Your task to perform on an android device: delete a single message in the gmail app Image 0: 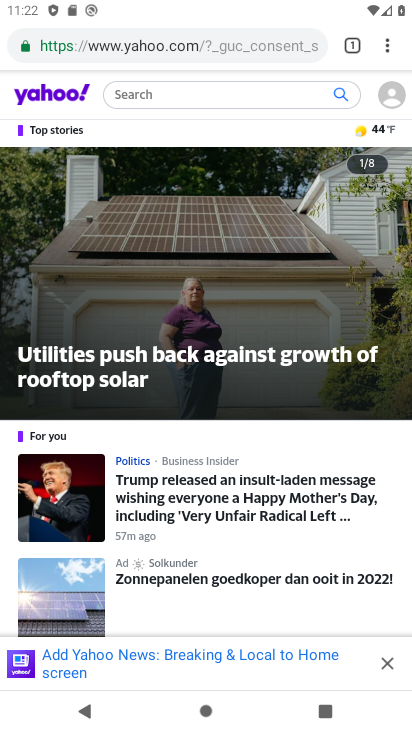
Step 0: press back button
Your task to perform on an android device: delete a single message in the gmail app Image 1: 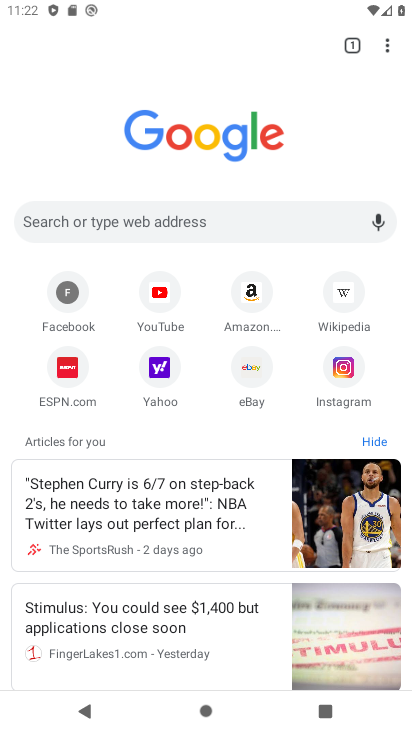
Step 1: press back button
Your task to perform on an android device: delete a single message in the gmail app Image 2: 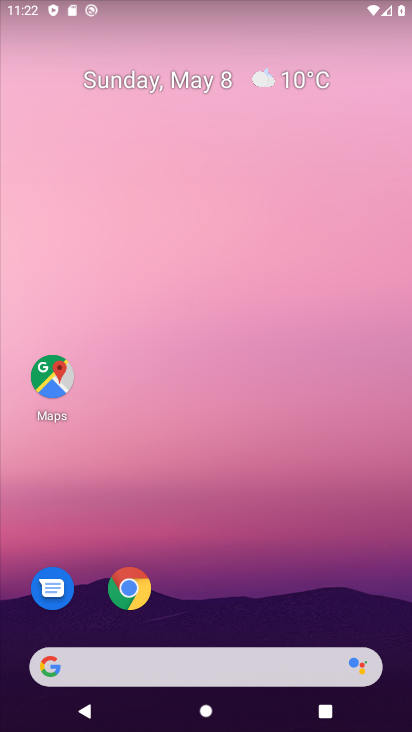
Step 2: drag from (234, 534) to (301, 44)
Your task to perform on an android device: delete a single message in the gmail app Image 3: 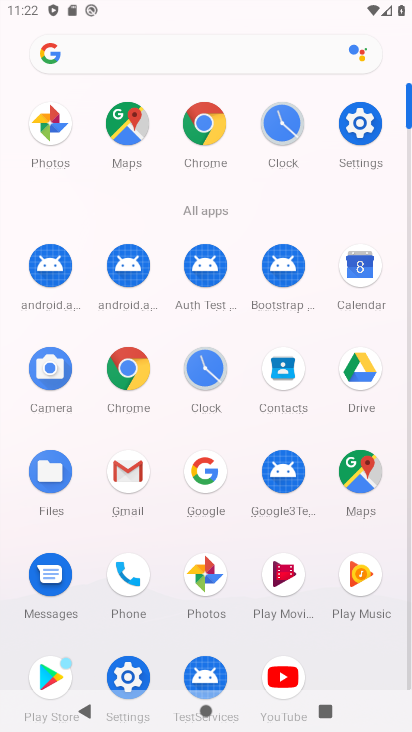
Step 3: click (142, 475)
Your task to perform on an android device: delete a single message in the gmail app Image 4: 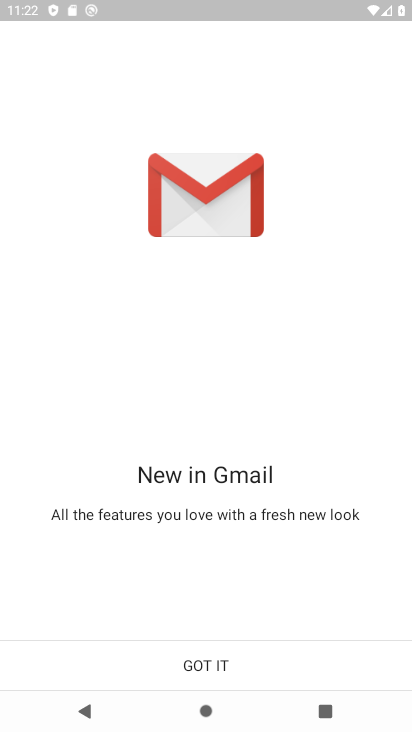
Step 4: click (207, 663)
Your task to perform on an android device: delete a single message in the gmail app Image 5: 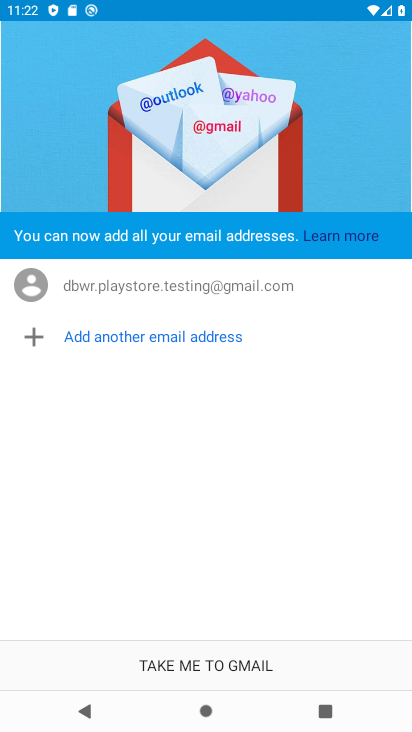
Step 5: click (201, 667)
Your task to perform on an android device: delete a single message in the gmail app Image 6: 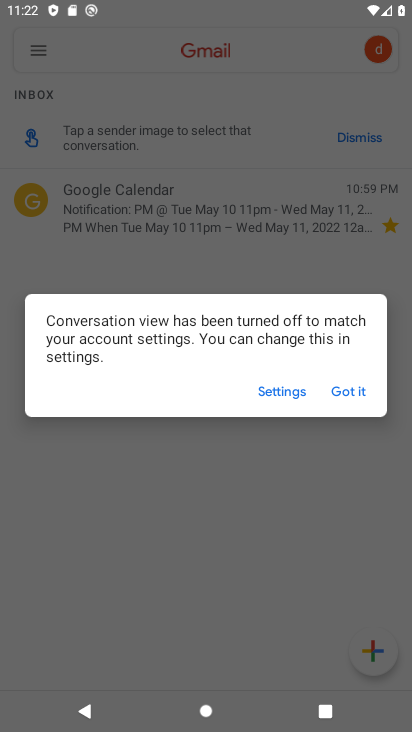
Step 6: click (368, 401)
Your task to perform on an android device: delete a single message in the gmail app Image 7: 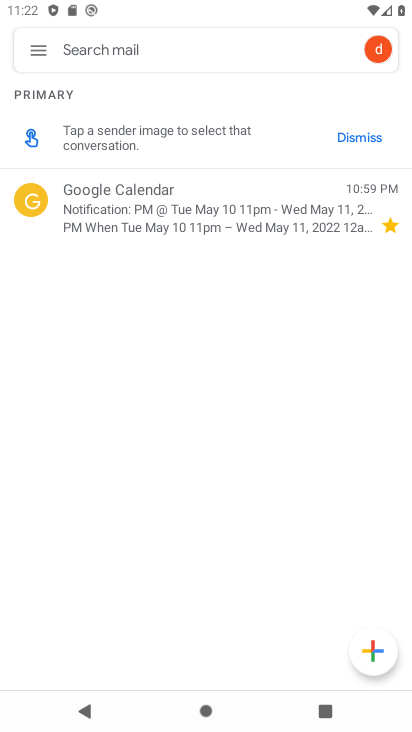
Step 7: click (36, 51)
Your task to perform on an android device: delete a single message in the gmail app Image 8: 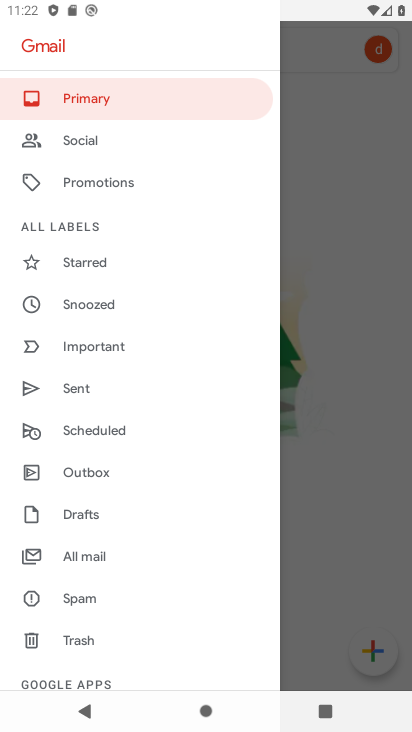
Step 8: click (79, 556)
Your task to perform on an android device: delete a single message in the gmail app Image 9: 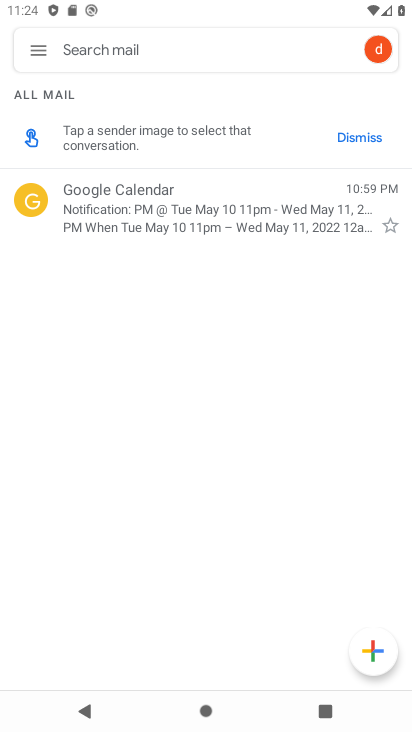
Step 9: click (148, 214)
Your task to perform on an android device: delete a single message in the gmail app Image 10: 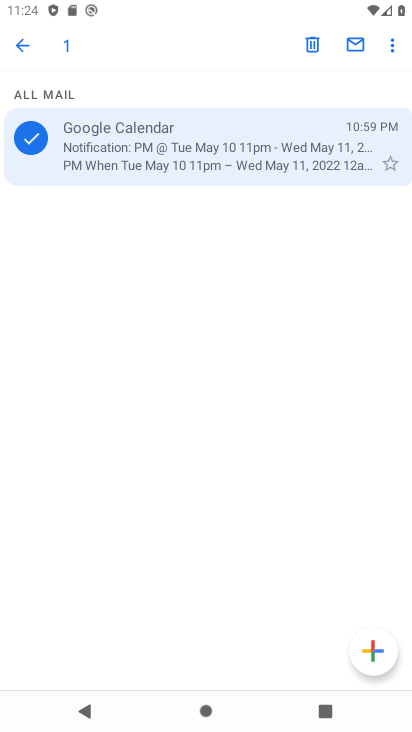
Step 10: click (316, 48)
Your task to perform on an android device: delete a single message in the gmail app Image 11: 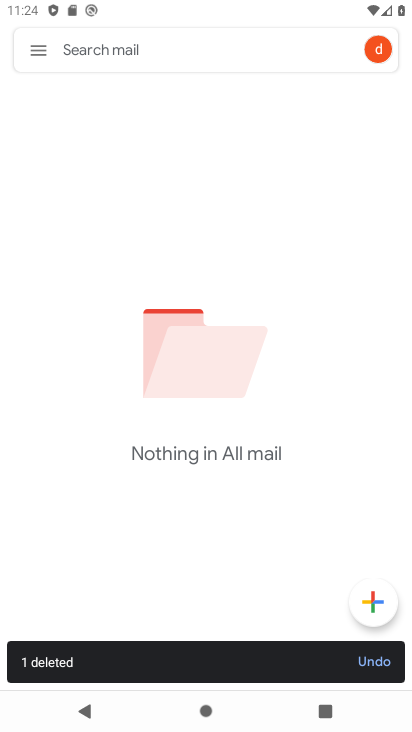
Step 11: task complete